Your task to perform on an android device: Open Google Chrome Image 0: 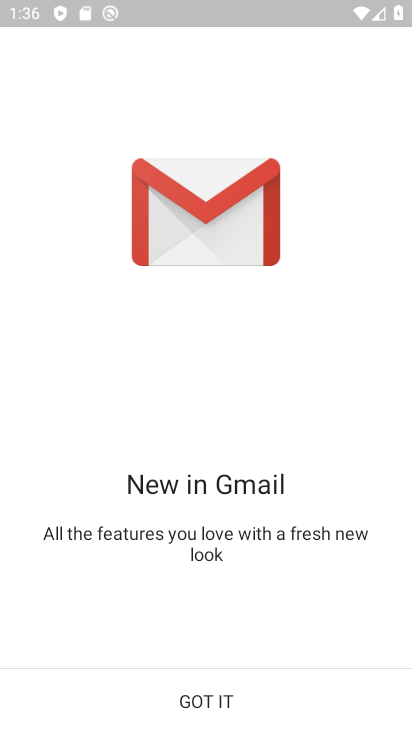
Step 0: press home button
Your task to perform on an android device: Open Google Chrome Image 1: 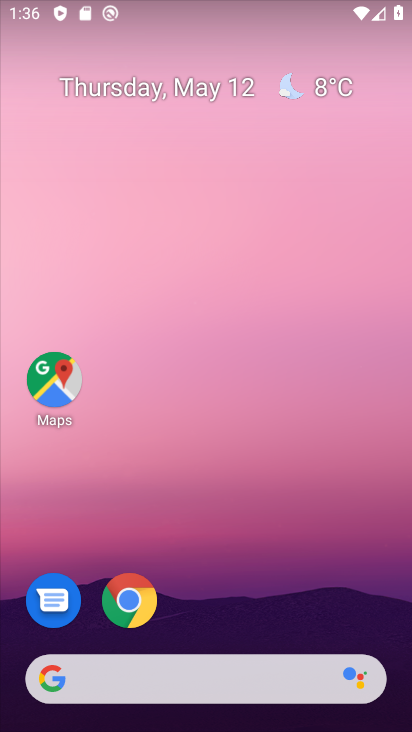
Step 1: click (130, 604)
Your task to perform on an android device: Open Google Chrome Image 2: 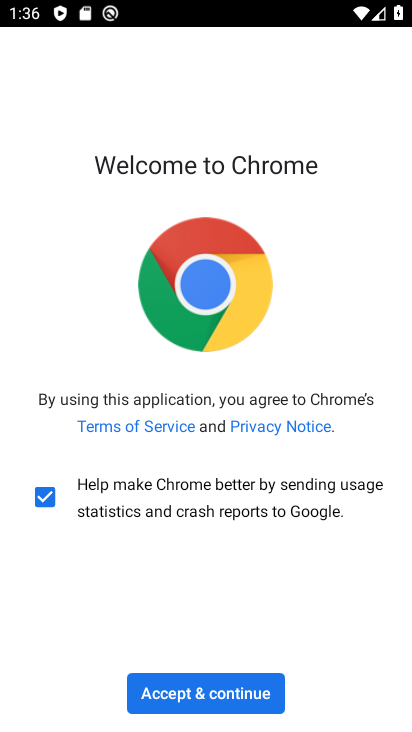
Step 2: click (217, 698)
Your task to perform on an android device: Open Google Chrome Image 3: 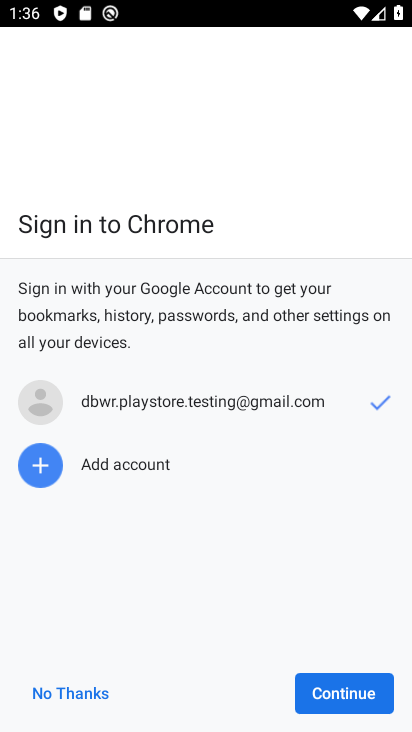
Step 3: click (340, 696)
Your task to perform on an android device: Open Google Chrome Image 4: 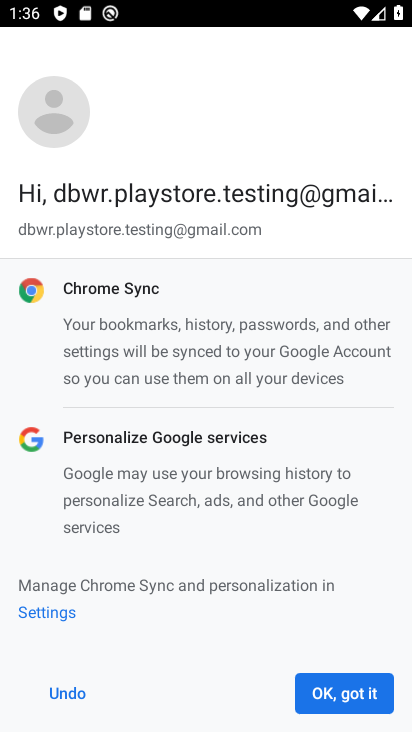
Step 4: click (340, 696)
Your task to perform on an android device: Open Google Chrome Image 5: 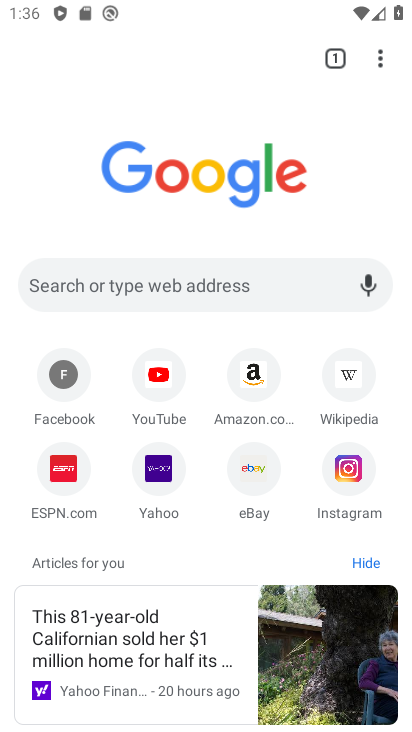
Step 5: task complete